Your task to perform on an android device: open a new tab in the chrome app Image 0: 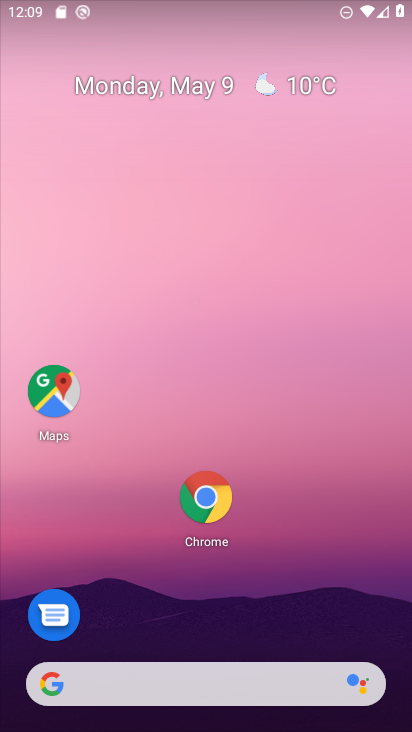
Step 0: click (203, 507)
Your task to perform on an android device: open a new tab in the chrome app Image 1: 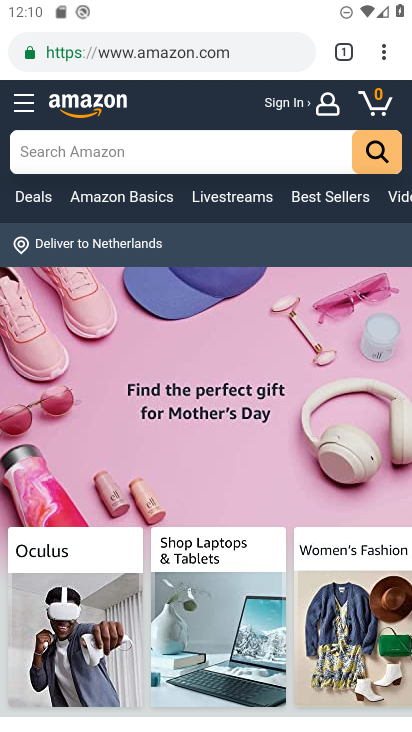
Step 1: task complete